Your task to perform on an android device: turn off wifi Image 0: 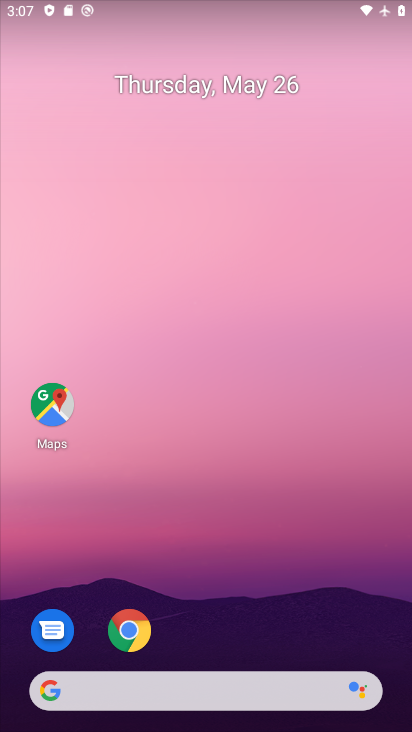
Step 0: drag from (246, 613) to (248, 95)
Your task to perform on an android device: turn off wifi Image 1: 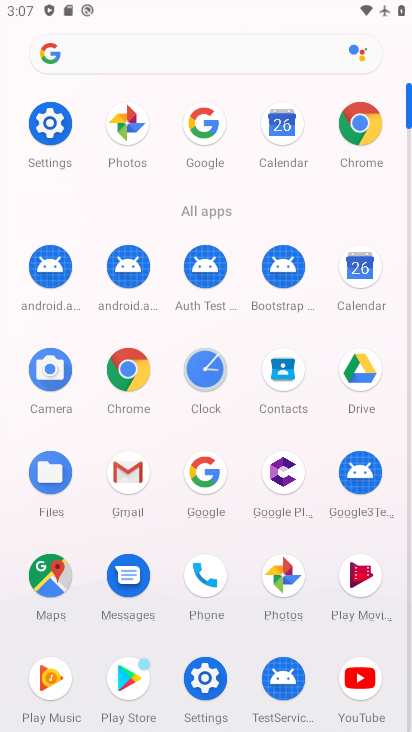
Step 1: click (49, 124)
Your task to perform on an android device: turn off wifi Image 2: 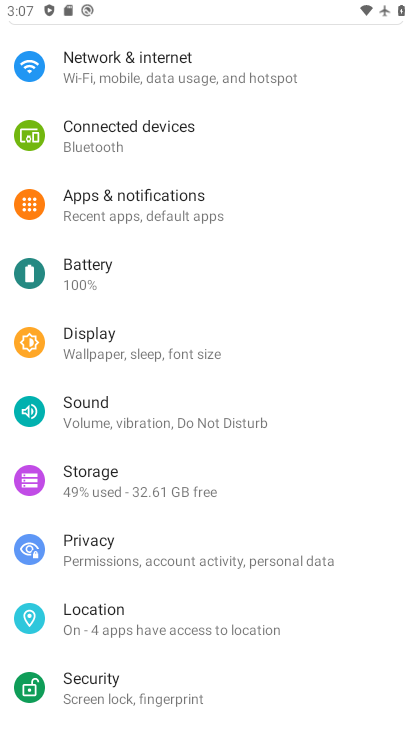
Step 2: drag from (167, 186) to (168, 384)
Your task to perform on an android device: turn off wifi Image 3: 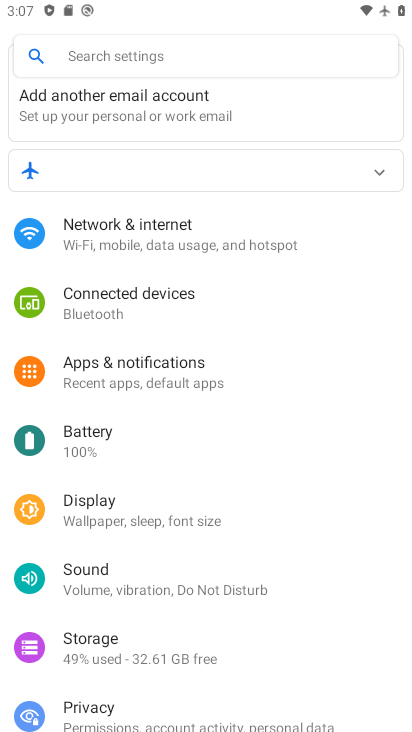
Step 3: click (155, 243)
Your task to perform on an android device: turn off wifi Image 4: 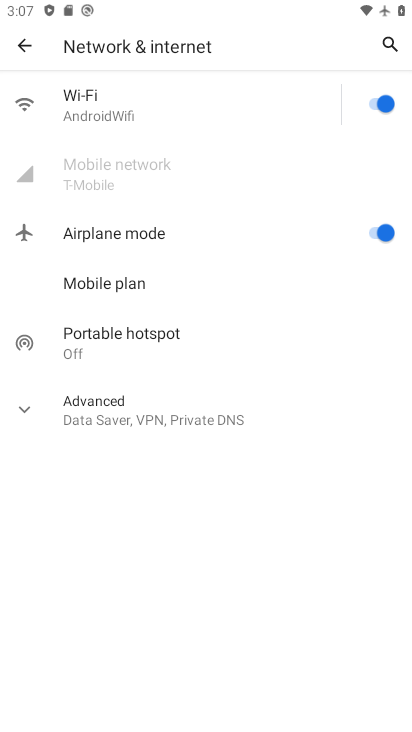
Step 4: click (391, 96)
Your task to perform on an android device: turn off wifi Image 5: 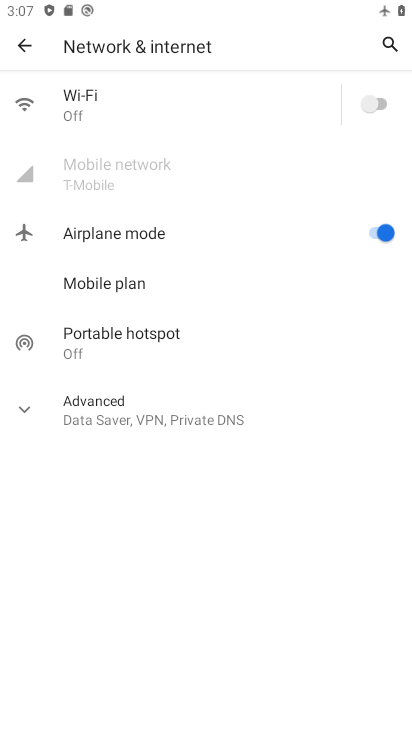
Step 5: task complete